Your task to perform on an android device: toggle priority inbox in the gmail app Image 0: 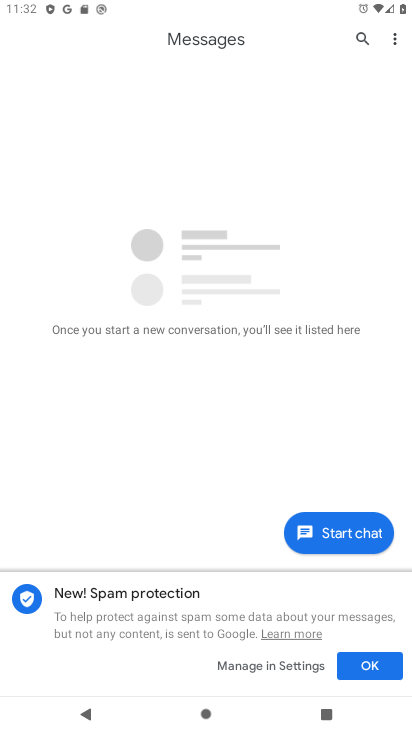
Step 0: press home button
Your task to perform on an android device: toggle priority inbox in the gmail app Image 1: 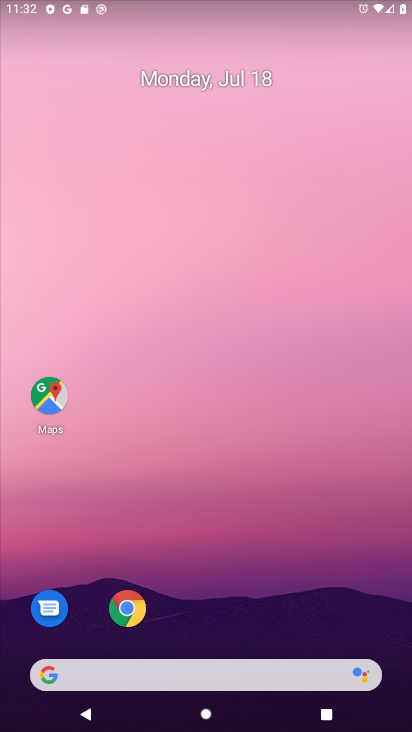
Step 1: drag from (344, 598) to (324, 24)
Your task to perform on an android device: toggle priority inbox in the gmail app Image 2: 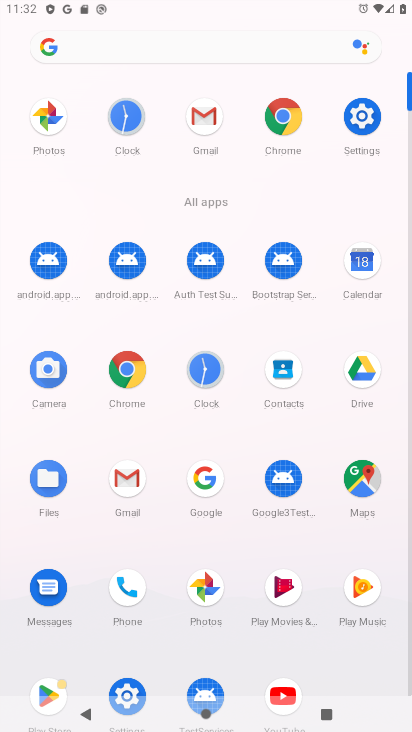
Step 2: click (211, 124)
Your task to perform on an android device: toggle priority inbox in the gmail app Image 3: 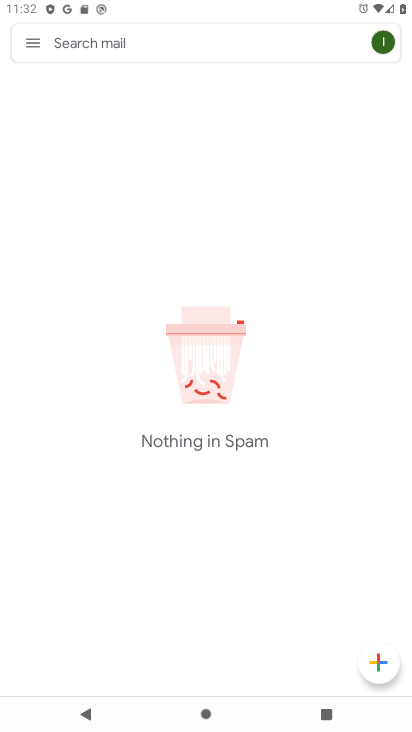
Step 3: click (27, 44)
Your task to perform on an android device: toggle priority inbox in the gmail app Image 4: 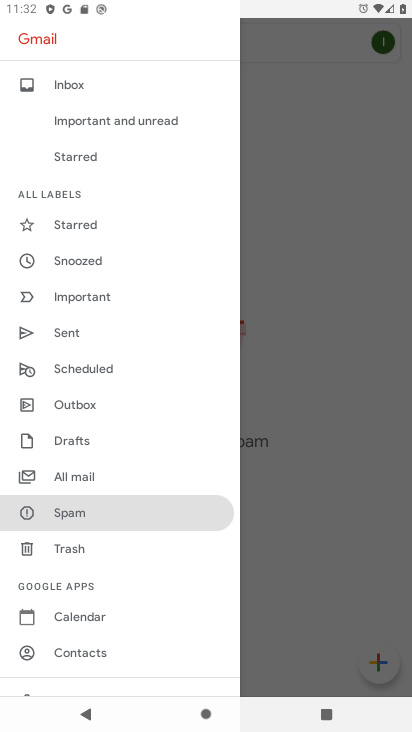
Step 4: drag from (144, 627) to (157, 259)
Your task to perform on an android device: toggle priority inbox in the gmail app Image 5: 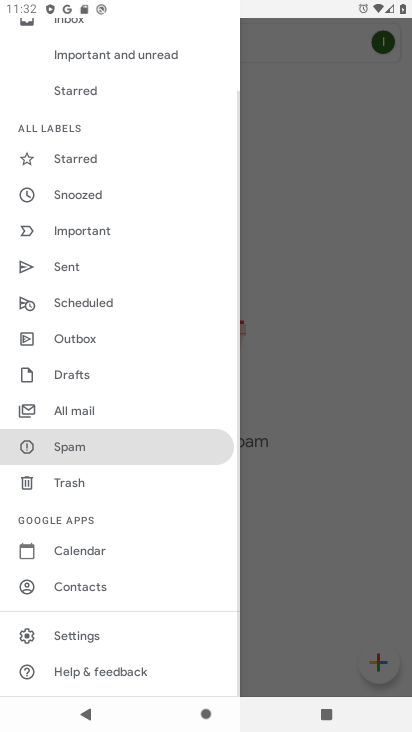
Step 5: click (72, 630)
Your task to perform on an android device: toggle priority inbox in the gmail app Image 6: 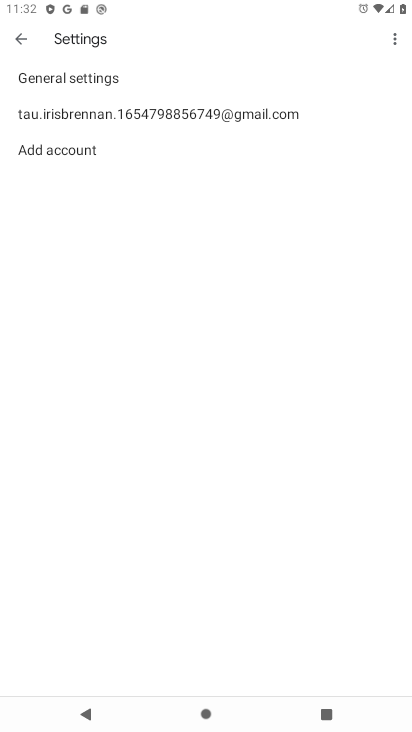
Step 6: click (253, 131)
Your task to perform on an android device: toggle priority inbox in the gmail app Image 7: 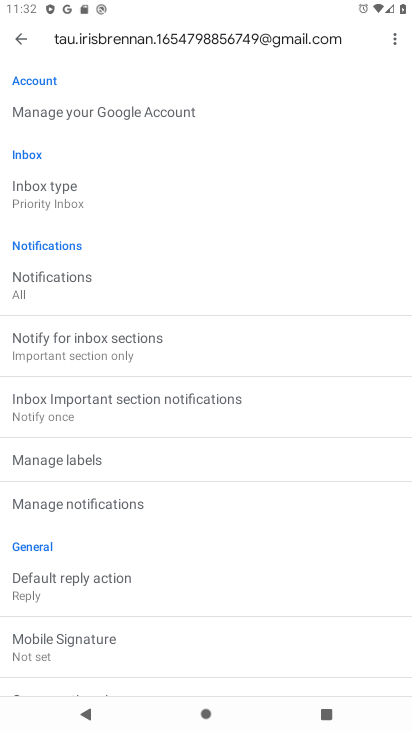
Step 7: click (77, 190)
Your task to perform on an android device: toggle priority inbox in the gmail app Image 8: 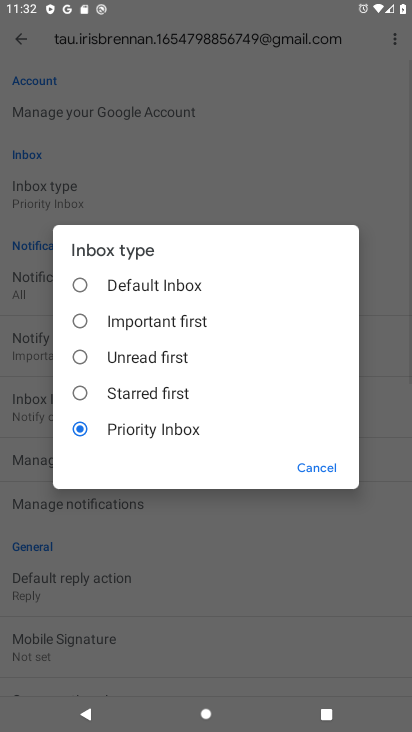
Step 8: click (121, 275)
Your task to perform on an android device: toggle priority inbox in the gmail app Image 9: 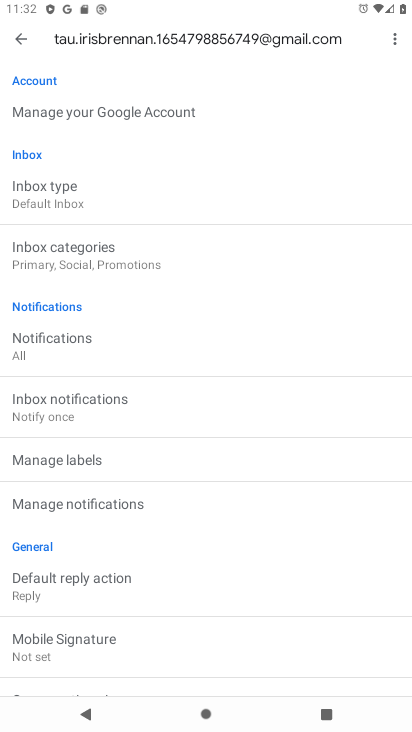
Step 9: task complete